Your task to perform on an android device: toggle notification dots Image 0: 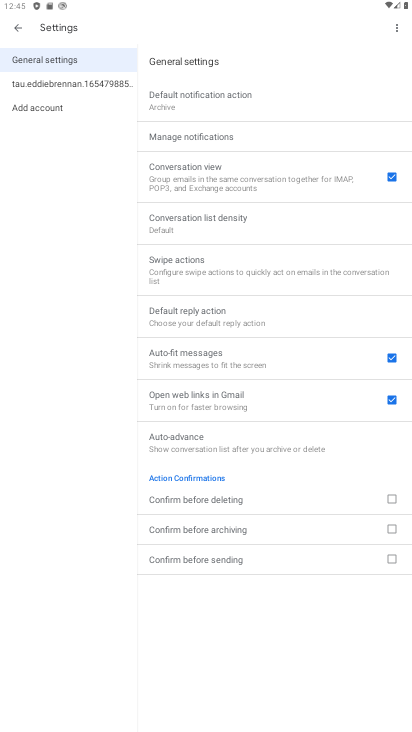
Step 0: press home button
Your task to perform on an android device: toggle notification dots Image 1: 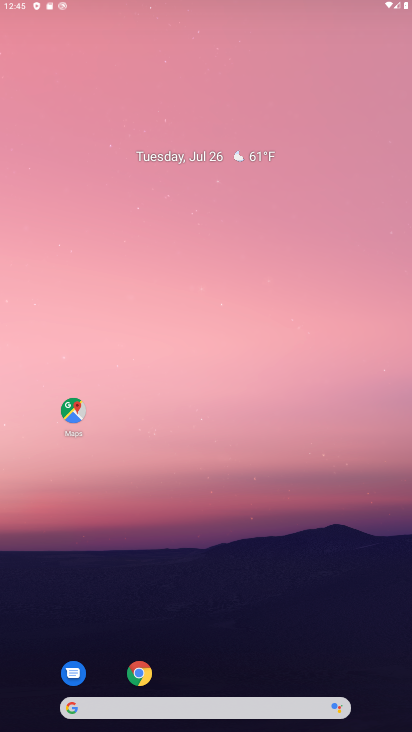
Step 1: drag from (190, 612) to (280, 219)
Your task to perform on an android device: toggle notification dots Image 2: 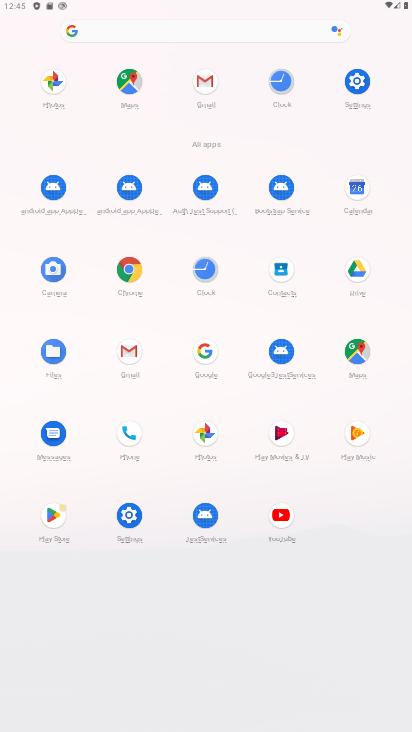
Step 2: click (353, 85)
Your task to perform on an android device: toggle notification dots Image 3: 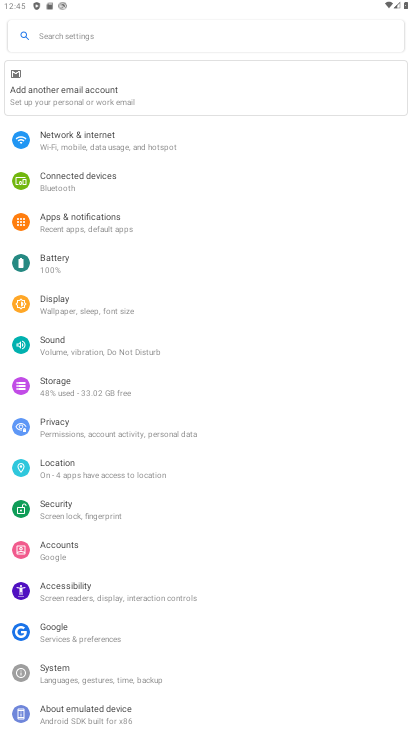
Step 3: click (111, 222)
Your task to perform on an android device: toggle notification dots Image 4: 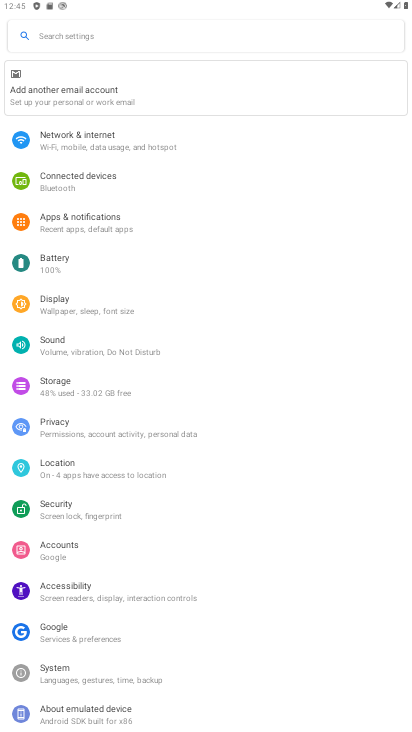
Step 4: click (111, 222)
Your task to perform on an android device: toggle notification dots Image 5: 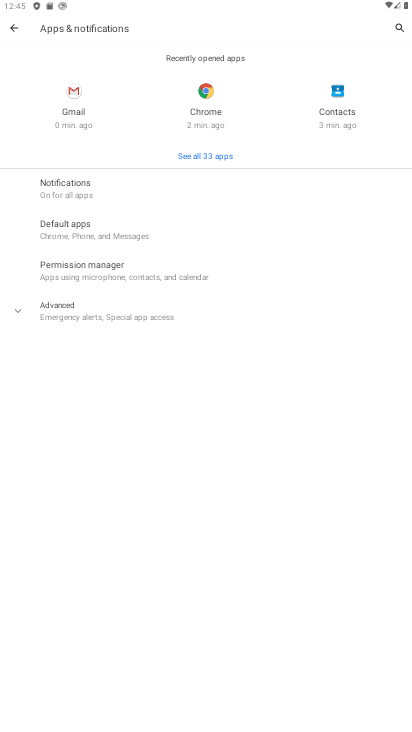
Step 5: click (117, 316)
Your task to perform on an android device: toggle notification dots Image 6: 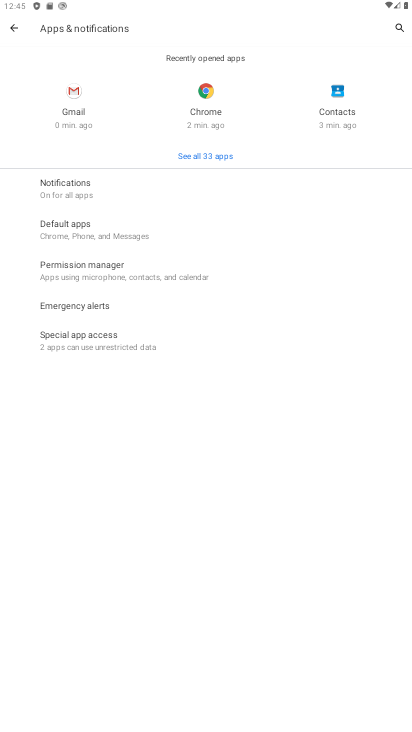
Step 6: click (177, 188)
Your task to perform on an android device: toggle notification dots Image 7: 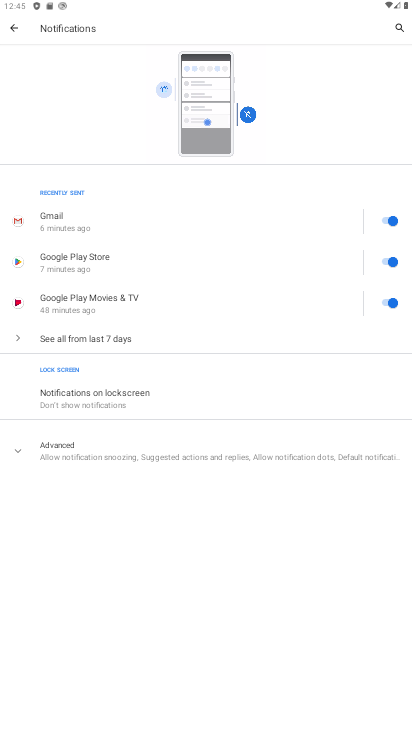
Step 7: click (147, 448)
Your task to perform on an android device: toggle notification dots Image 8: 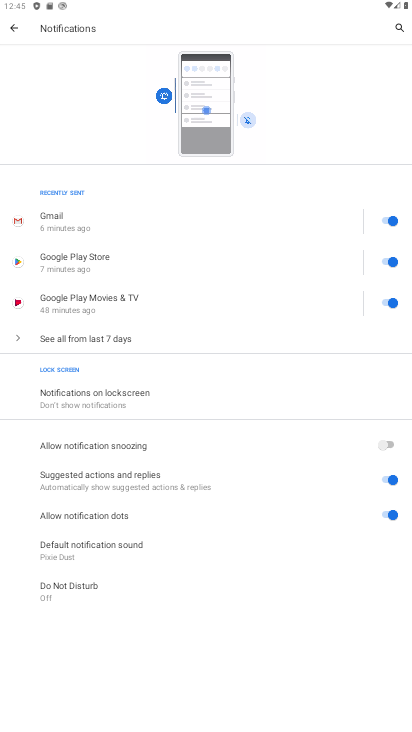
Step 8: click (384, 511)
Your task to perform on an android device: toggle notification dots Image 9: 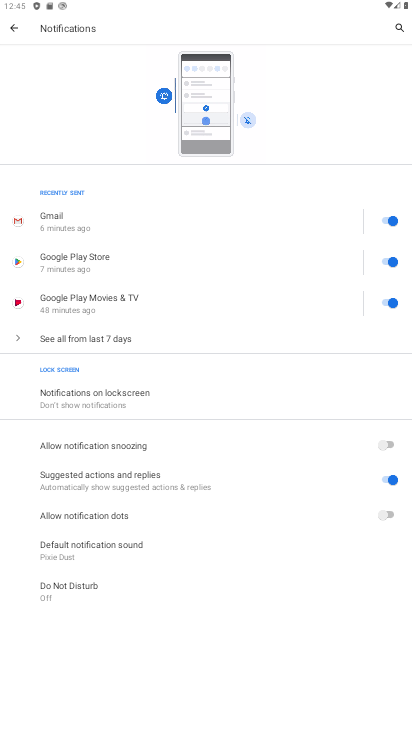
Step 9: task complete